Your task to perform on an android device: Go to ESPN.com Image 0: 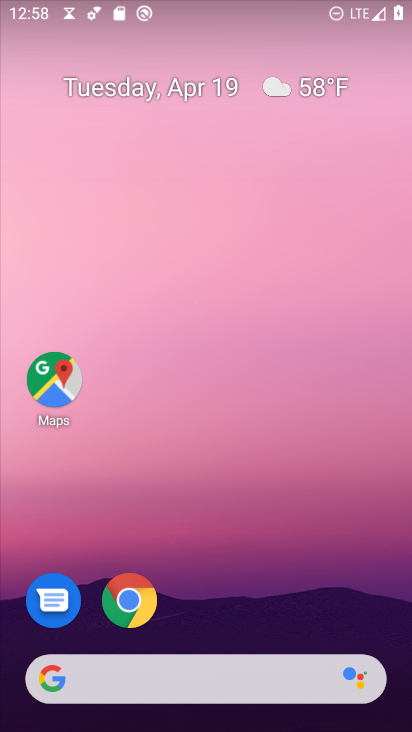
Step 0: click (138, 611)
Your task to perform on an android device: Go to ESPN.com Image 1: 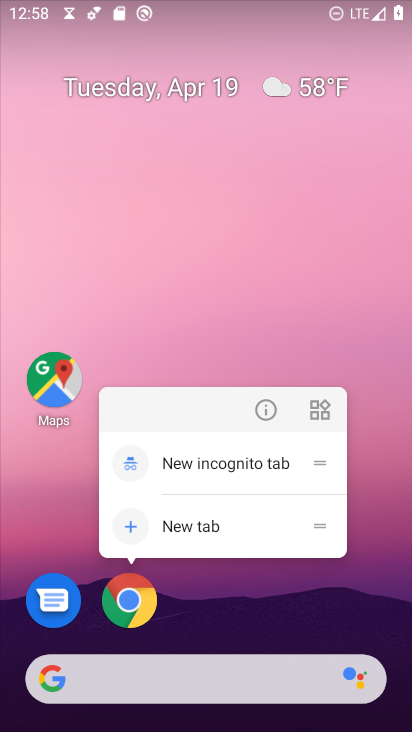
Step 1: click (125, 589)
Your task to perform on an android device: Go to ESPN.com Image 2: 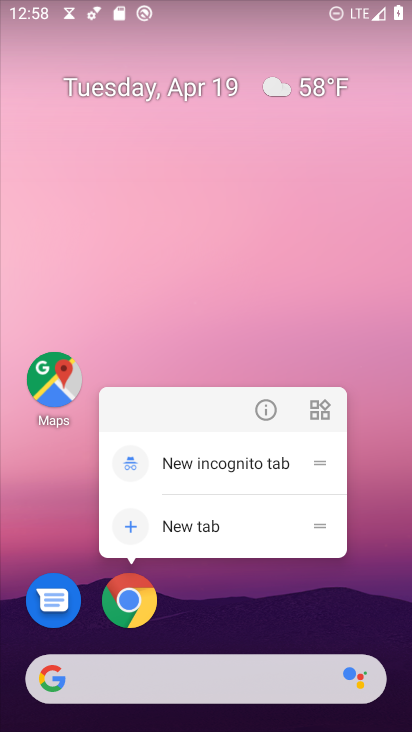
Step 2: click (132, 610)
Your task to perform on an android device: Go to ESPN.com Image 3: 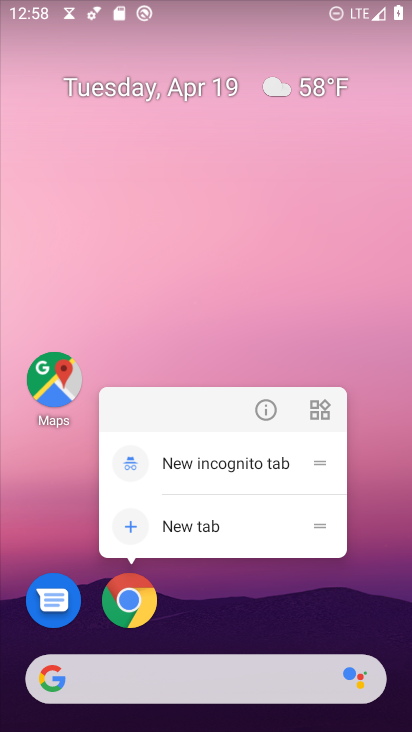
Step 3: click (132, 610)
Your task to perform on an android device: Go to ESPN.com Image 4: 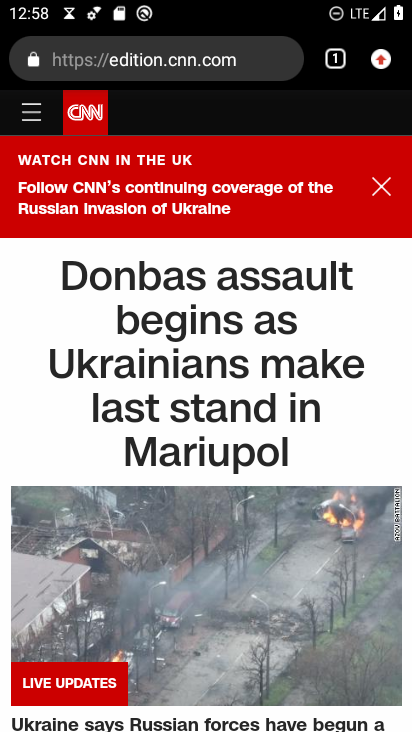
Step 4: click (132, 610)
Your task to perform on an android device: Go to ESPN.com Image 5: 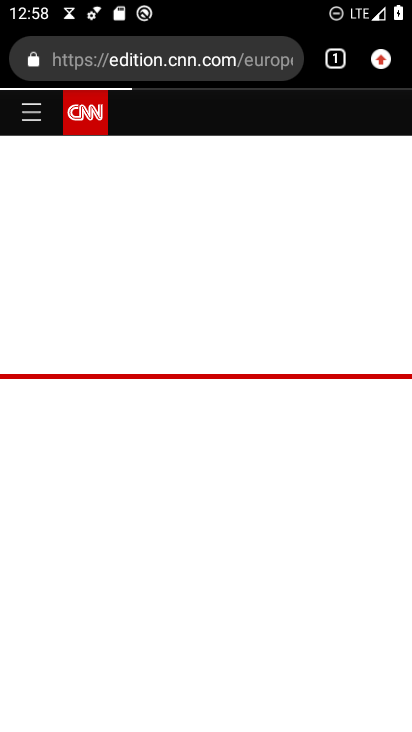
Step 5: click (173, 70)
Your task to perform on an android device: Go to ESPN.com Image 6: 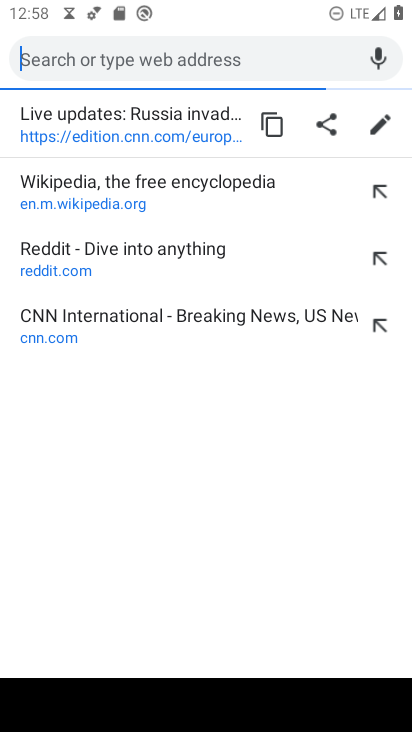
Step 6: type "espn.com"
Your task to perform on an android device: Go to ESPN.com Image 7: 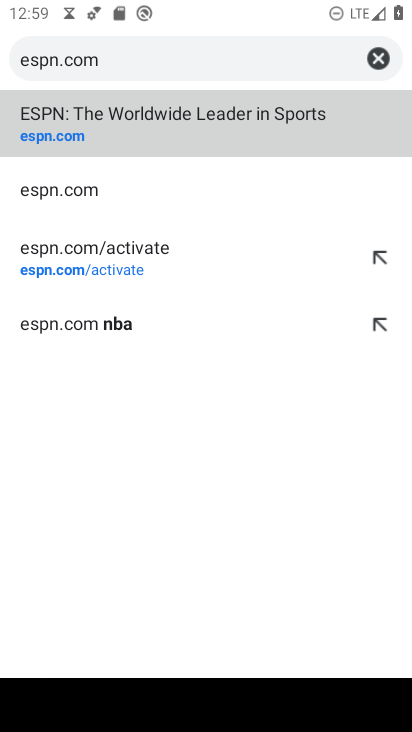
Step 7: click (225, 121)
Your task to perform on an android device: Go to ESPN.com Image 8: 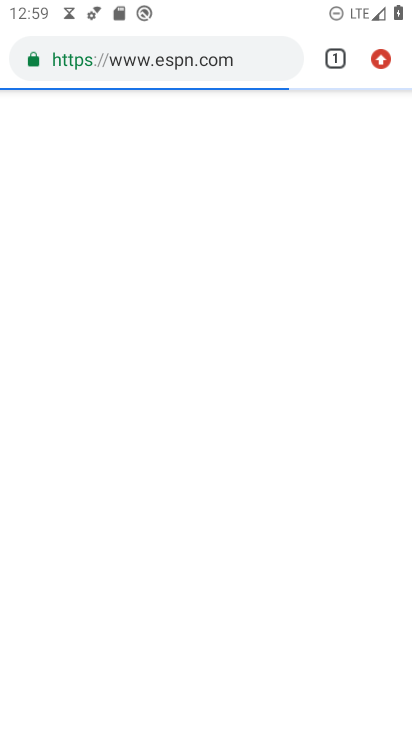
Step 8: task complete